Your task to perform on an android device: Open the map Image 0: 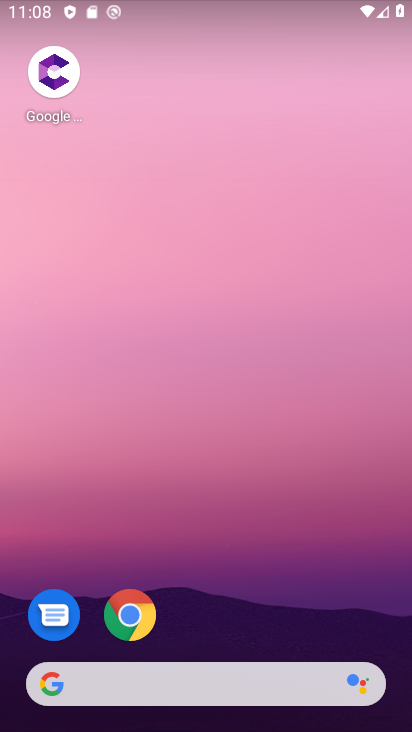
Step 0: drag from (355, 593) to (358, 107)
Your task to perform on an android device: Open the map Image 1: 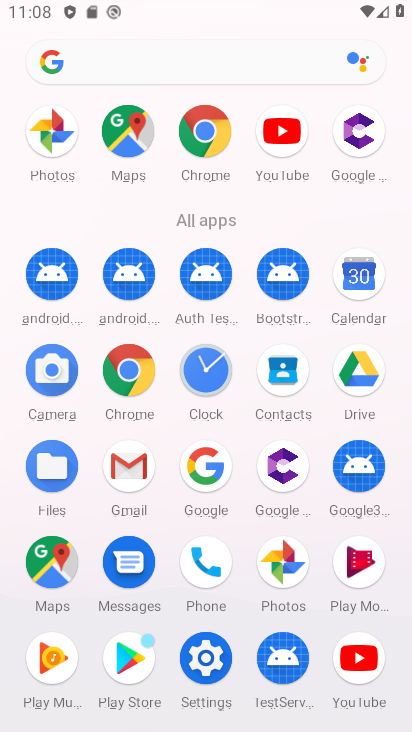
Step 1: click (51, 582)
Your task to perform on an android device: Open the map Image 2: 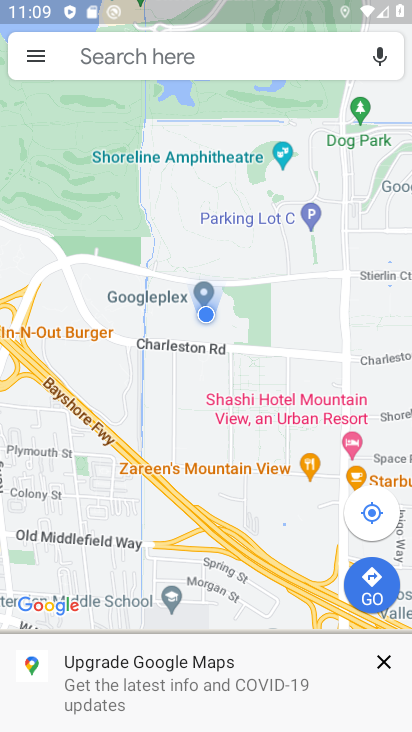
Step 2: task complete